Your task to perform on an android device: set the stopwatch Image 0: 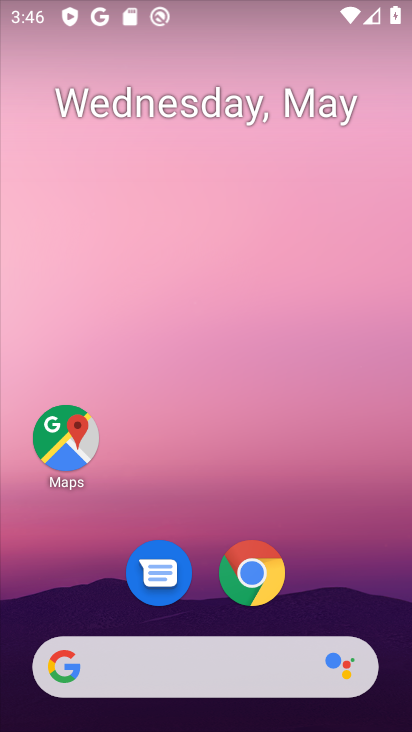
Step 0: drag from (262, 673) to (252, 235)
Your task to perform on an android device: set the stopwatch Image 1: 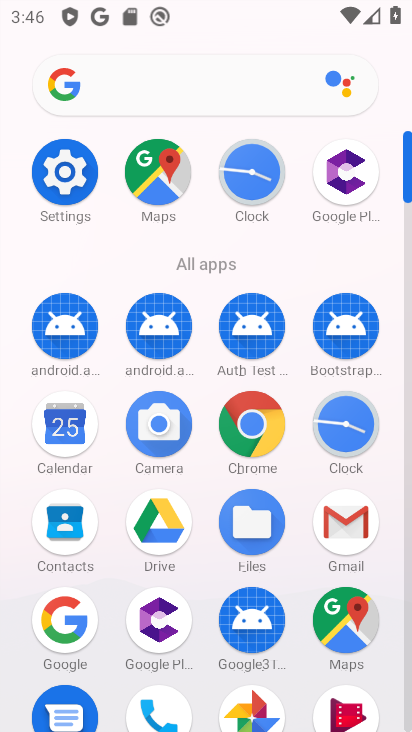
Step 1: click (328, 425)
Your task to perform on an android device: set the stopwatch Image 2: 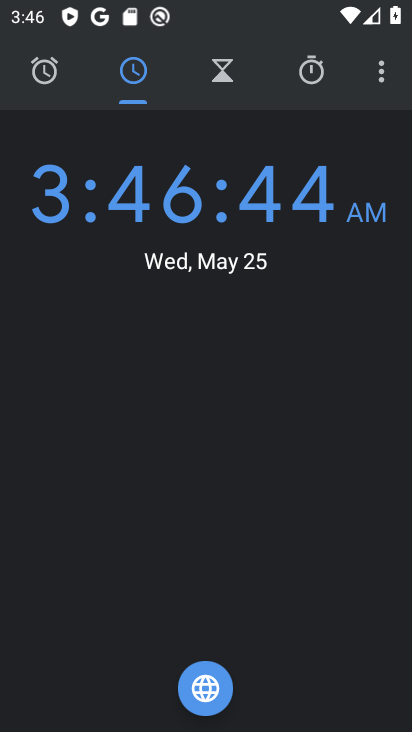
Step 2: click (375, 89)
Your task to perform on an android device: set the stopwatch Image 3: 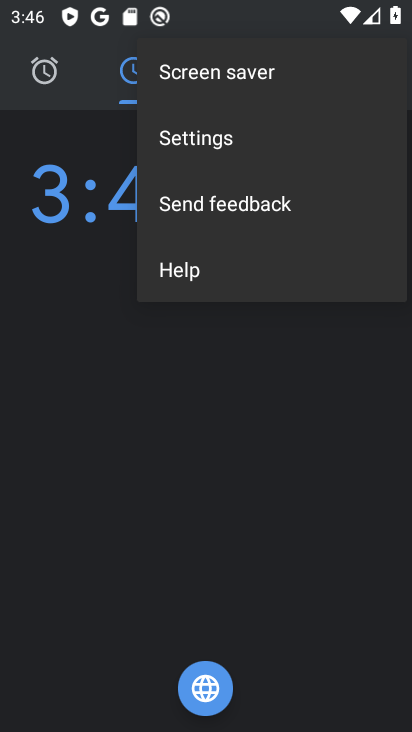
Step 3: click (217, 155)
Your task to perform on an android device: set the stopwatch Image 4: 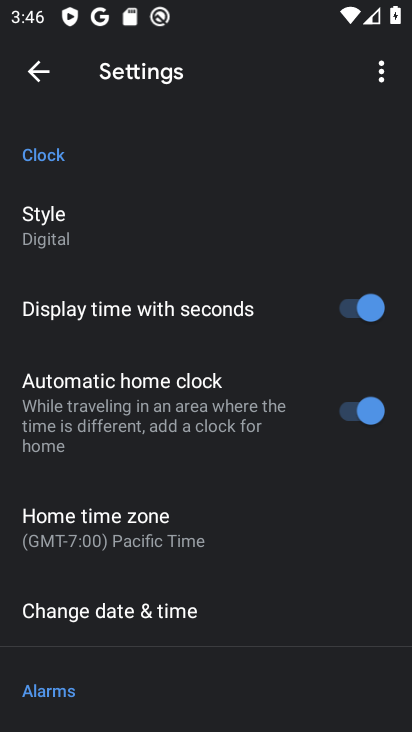
Step 4: click (44, 75)
Your task to perform on an android device: set the stopwatch Image 5: 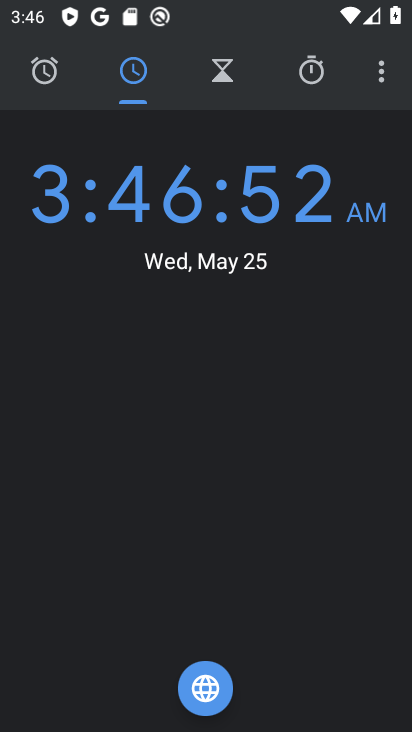
Step 5: click (293, 77)
Your task to perform on an android device: set the stopwatch Image 6: 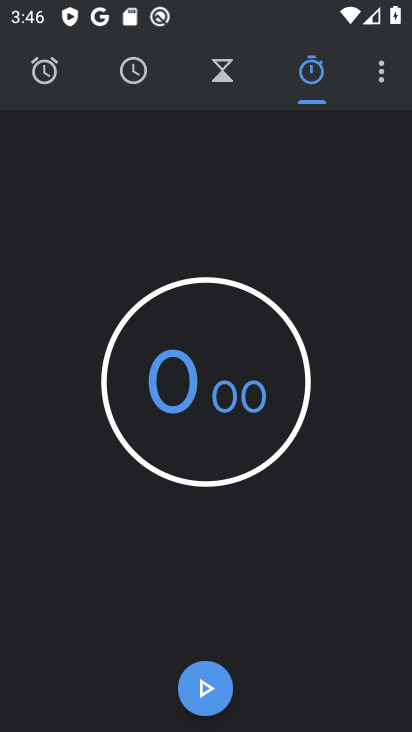
Step 6: click (208, 683)
Your task to perform on an android device: set the stopwatch Image 7: 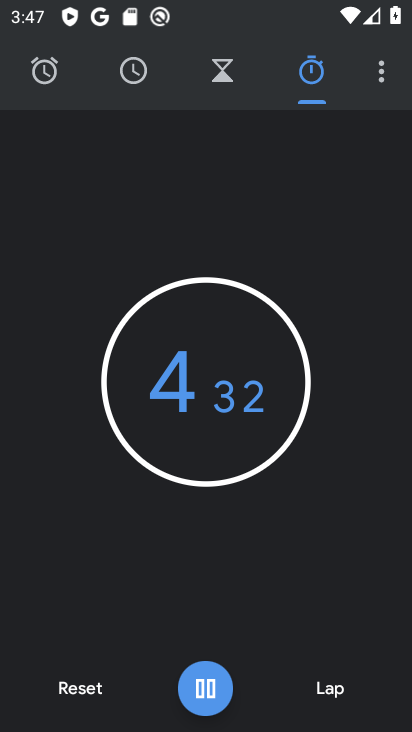
Step 7: task complete